Your task to perform on an android device: Go to network settings Image 0: 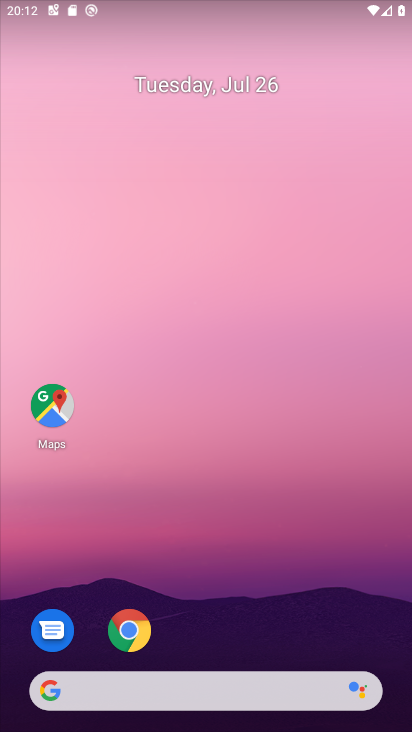
Step 0: drag from (397, 678) to (317, 108)
Your task to perform on an android device: Go to network settings Image 1: 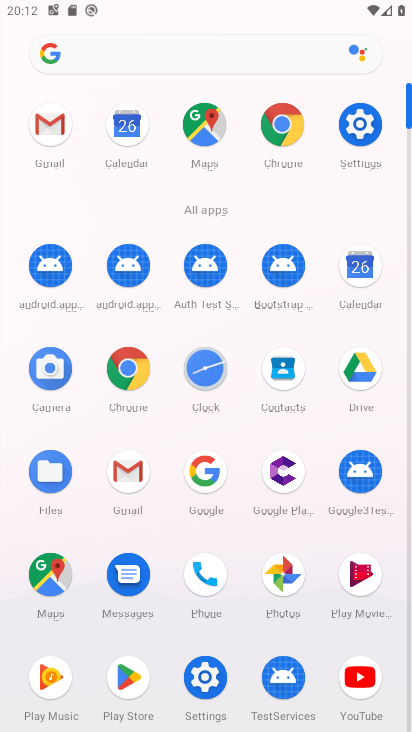
Step 1: click (365, 116)
Your task to perform on an android device: Go to network settings Image 2: 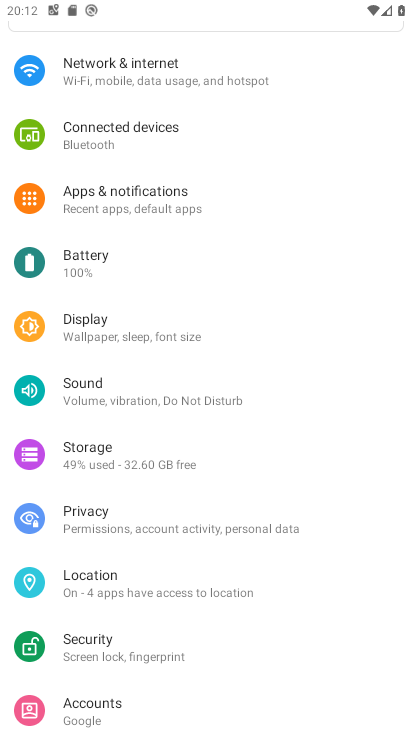
Step 2: click (96, 74)
Your task to perform on an android device: Go to network settings Image 3: 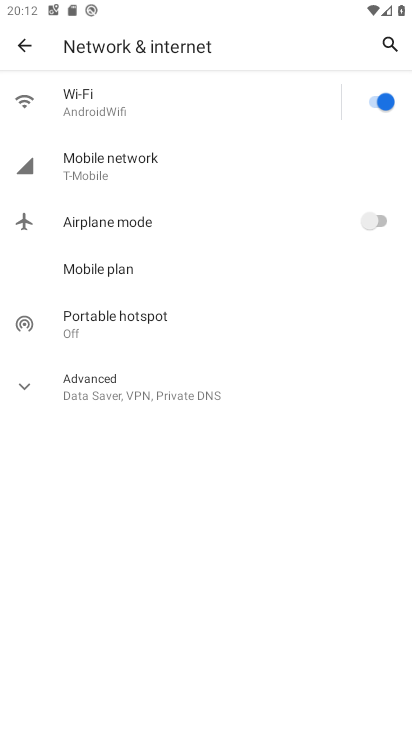
Step 3: click (90, 170)
Your task to perform on an android device: Go to network settings Image 4: 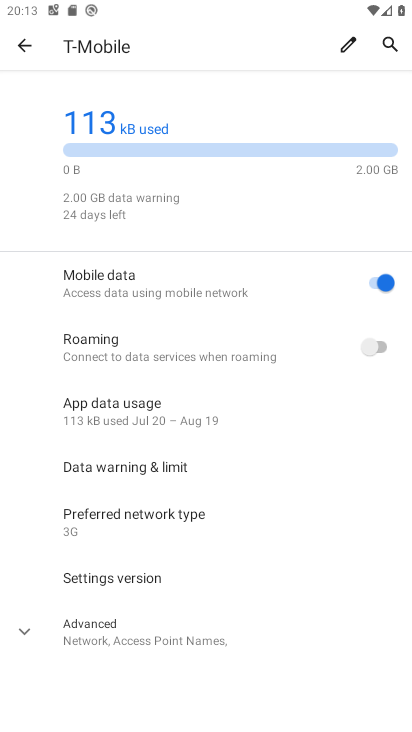
Step 4: click (25, 626)
Your task to perform on an android device: Go to network settings Image 5: 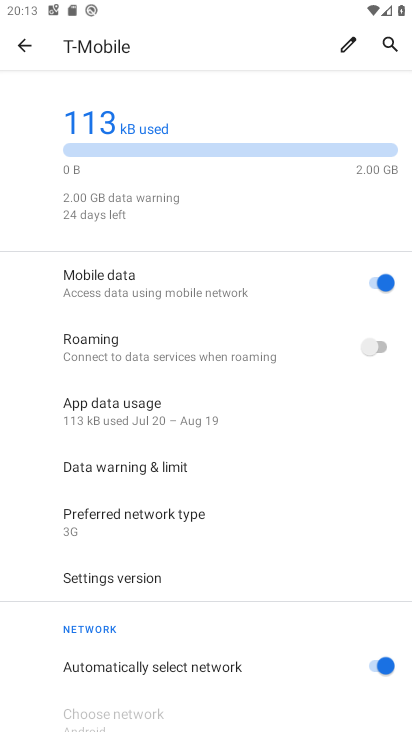
Step 5: task complete